Your task to perform on an android device: find photos in the google photos app Image 0: 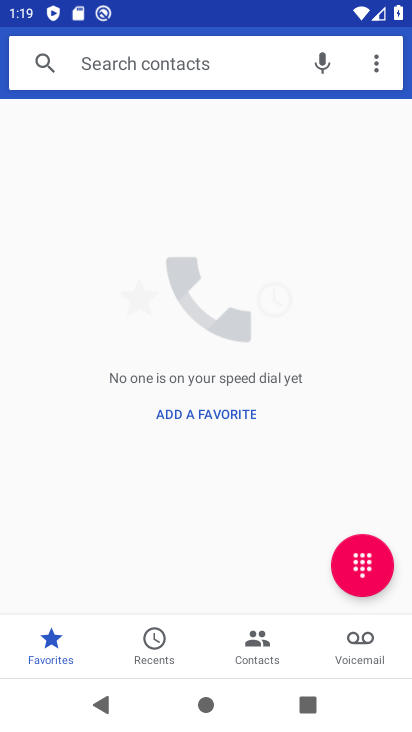
Step 0: press home button
Your task to perform on an android device: find photos in the google photos app Image 1: 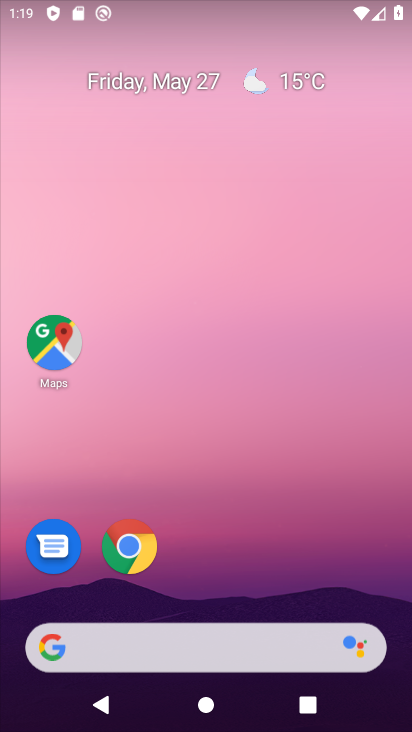
Step 1: drag from (312, 576) to (278, 156)
Your task to perform on an android device: find photos in the google photos app Image 2: 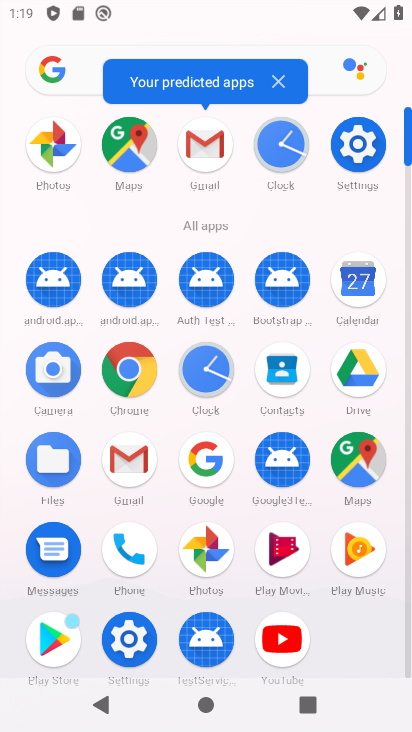
Step 2: click (194, 546)
Your task to perform on an android device: find photos in the google photos app Image 3: 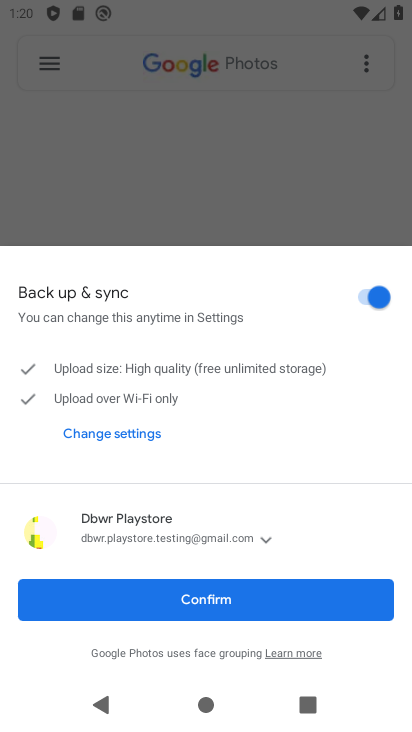
Step 3: click (204, 611)
Your task to perform on an android device: find photos in the google photos app Image 4: 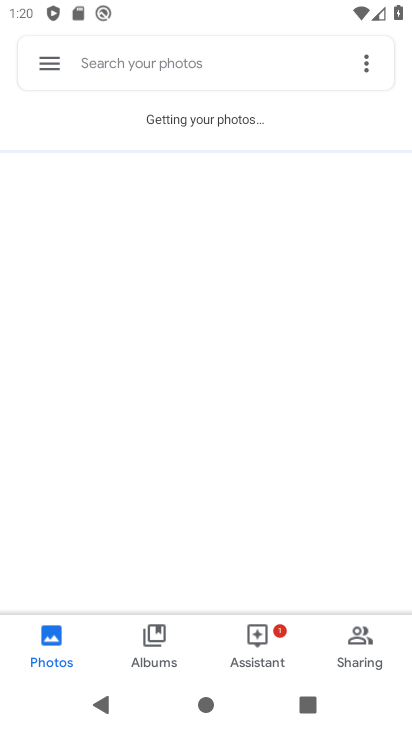
Step 4: task complete